Your task to perform on an android device: Search for the best pizza restaurants on Maps Image 0: 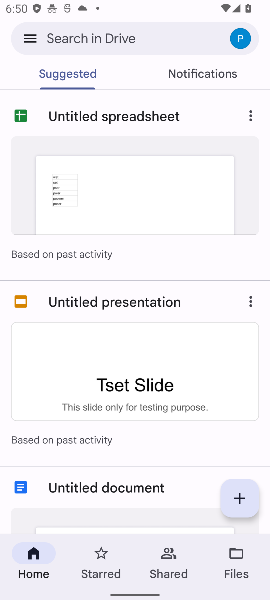
Step 0: press home button
Your task to perform on an android device: Search for the best pizza restaurants on Maps Image 1: 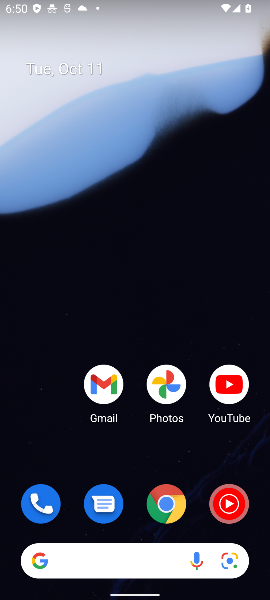
Step 1: drag from (108, 449) to (166, 53)
Your task to perform on an android device: Search for the best pizza restaurants on Maps Image 2: 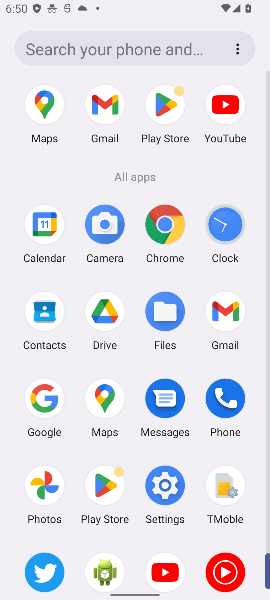
Step 2: click (45, 106)
Your task to perform on an android device: Search for the best pizza restaurants on Maps Image 3: 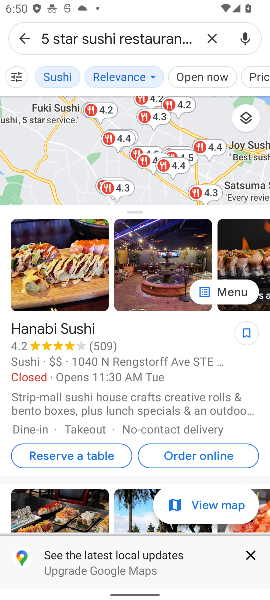
Step 3: click (207, 35)
Your task to perform on an android device: Search for the best pizza restaurants on Maps Image 4: 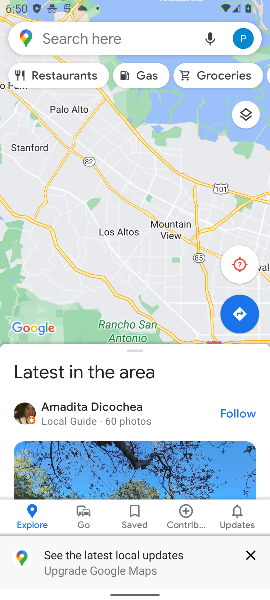
Step 4: click (88, 41)
Your task to perform on an android device: Search for the best pizza restaurants on Maps Image 5: 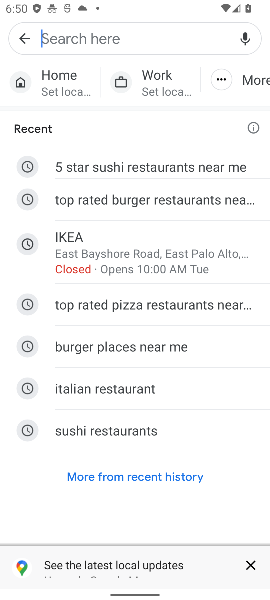
Step 5: type " best pizza restaurants"
Your task to perform on an android device: Search for the best pizza restaurants on Maps Image 6: 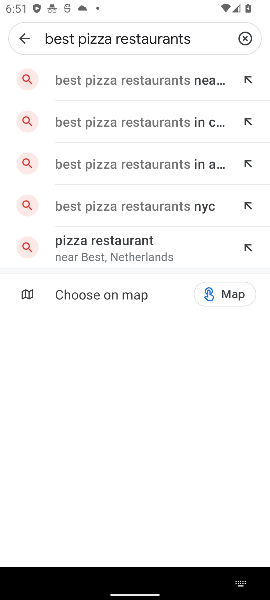
Step 6: click (124, 78)
Your task to perform on an android device: Search for the best pizza restaurants on Maps Image 7: 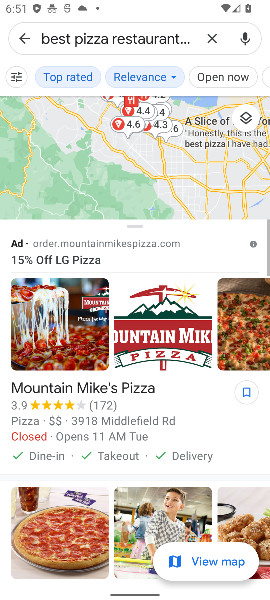
Step 7: task complete